Your task to perform on an android device: Show me the alarms in the clock app Image 0: 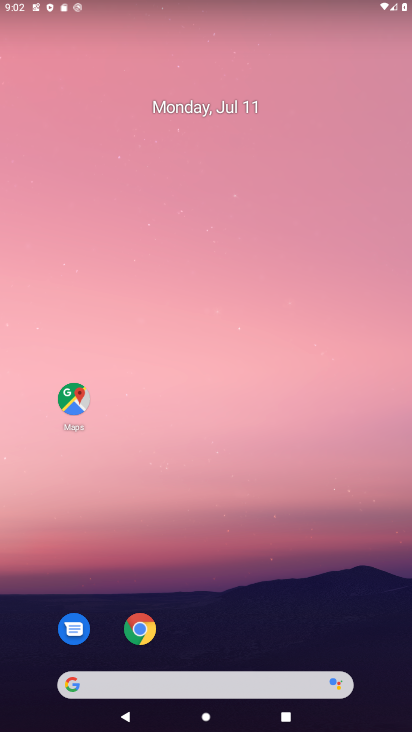
Step 0: click (397, 99)
Your task to perform on an android device: Show me the alarms in the clock app Image 1: 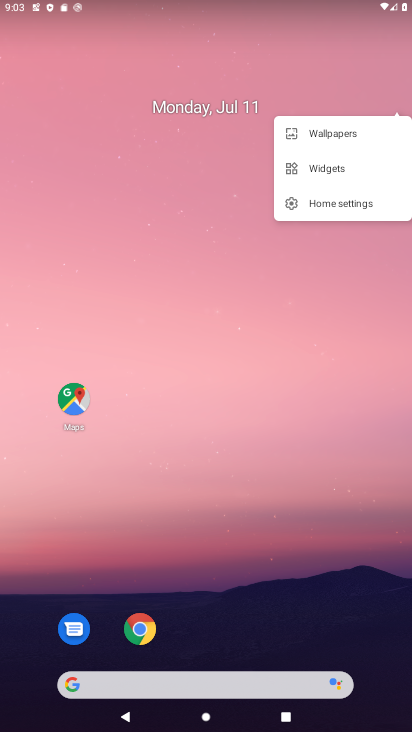
Step 1: drag from (23, 691) to (305, 209)
Your task to perform on an android device: Show me the alarms in the clock app Image 2: 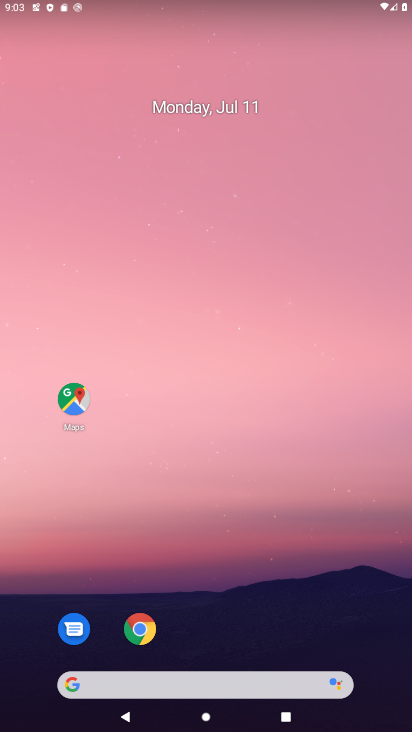
Step 2: drag from (32, 693) to (389, 128)
Your task to perform on an android device: Show me the alarms in the clock app Image 3: 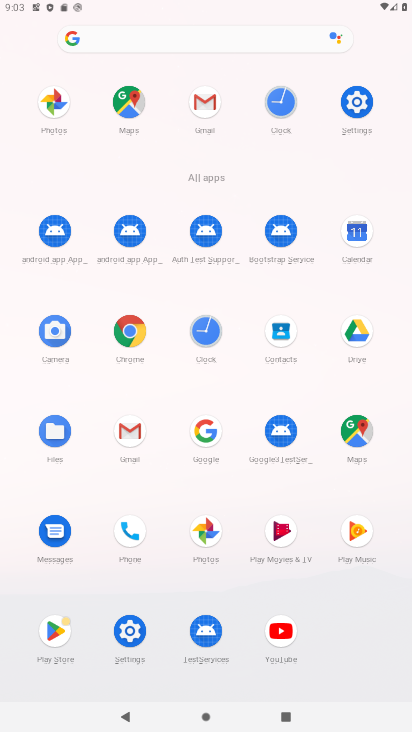
Step 3: click (279, 111)
Your task to perform on an android device: Show me the alarms in the clock app Image 4: 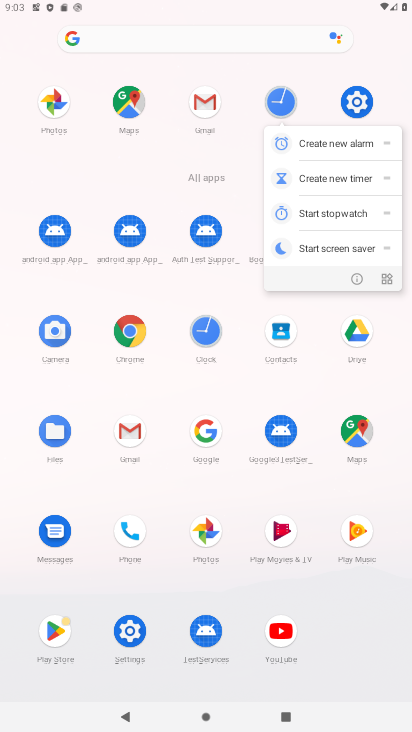
Step 4: click (281, 100)
Your task to perform on an android device: Show me the alarms in the clock app Image 5: 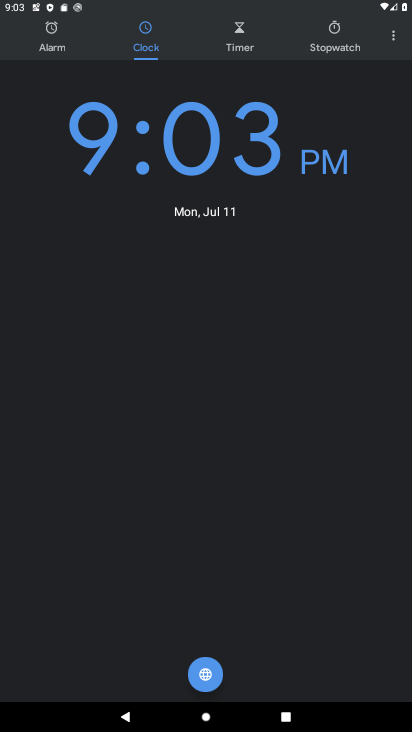
Step 5: click (45, 30)
Your task to perform on an android device: Show me the alarms in the clock app Image 6: 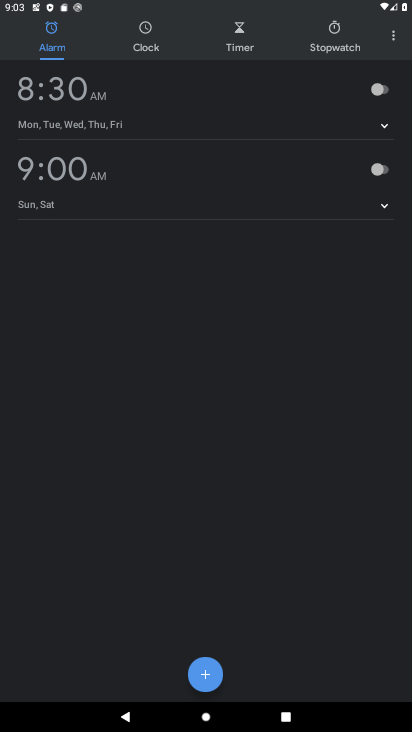
Step 6: task complete